Your task to perform on an android device: clear all cookies in the chrome app Image 0: 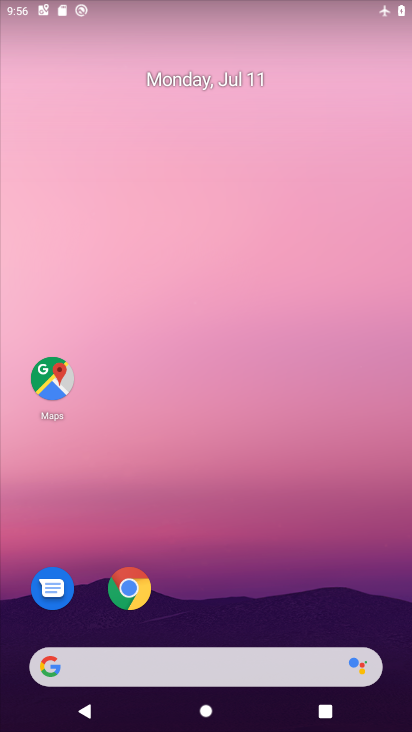
Step 0: drag from (222, 586) to (179, 264)
Your task to perform on an android device: clear all cookies in the chrome app Image 1: 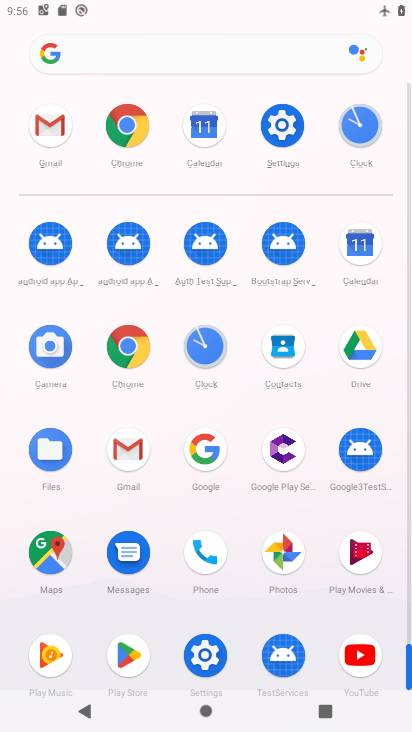
Step 1: click (133, 351)
Your task to perform on an android device: clear all cookies in the chrome app Image 2: 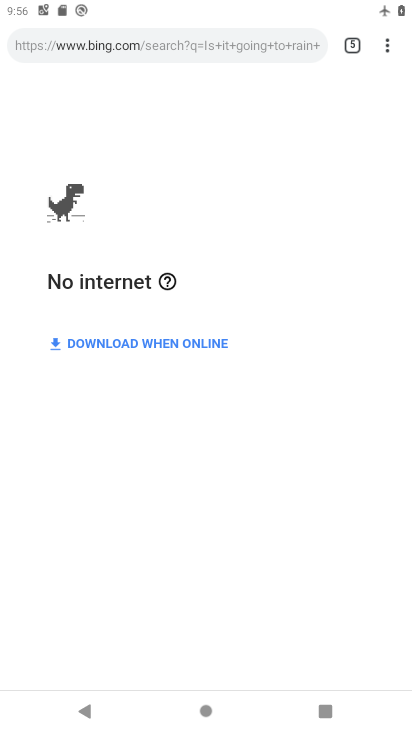
Step 2: click (392, 40)
Your task to perform on an android device: clear all cookies in the chrome app Image 3: 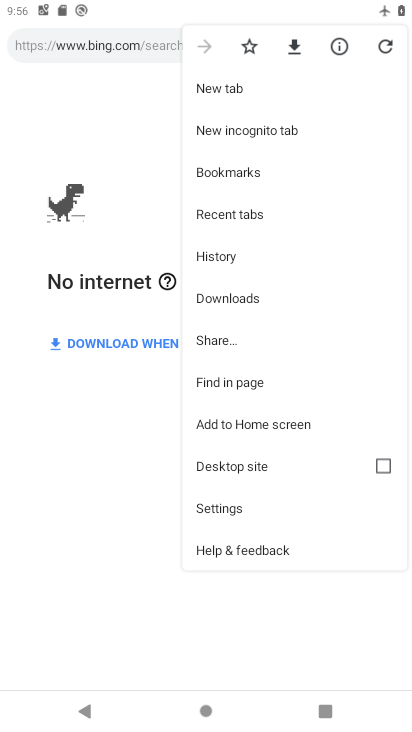
Step 3: click (255, 507)
Your task to perform on an android device: clear all cookies in the chrome app Image 4: 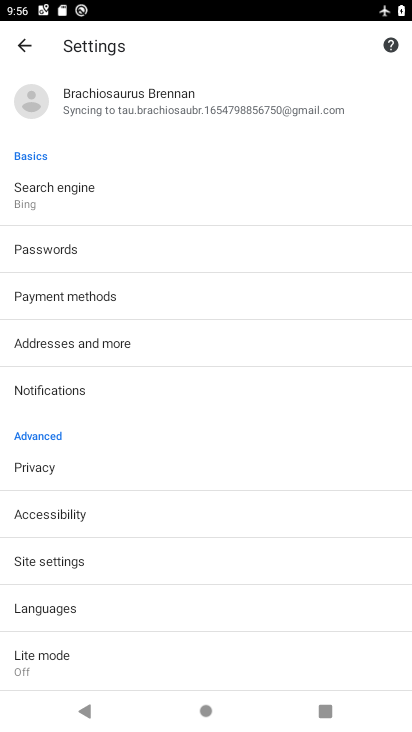
Step 4: click (118, 461)
Your task to perform on an android device: clear all cookies in the chrome app Image 5: 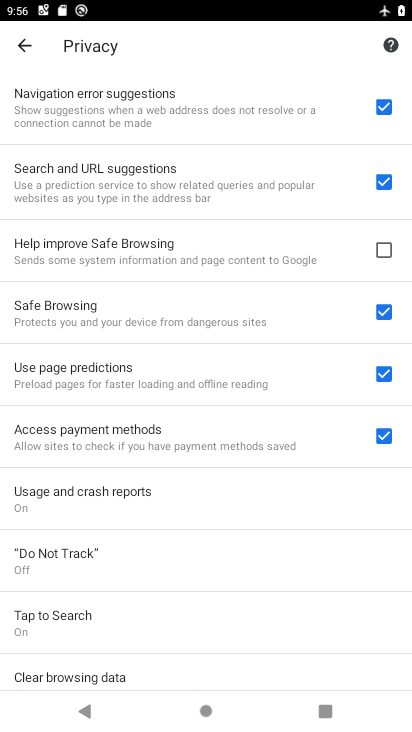
Step 5: drag from (198, 578) to (208, 262)
Your task to perform on an android device: clear all cookies in the chrome app Image 6: 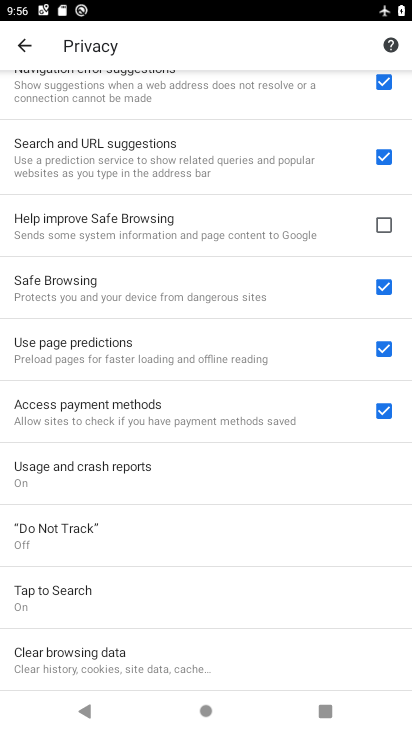
Step 6: click (171, 658)
Your task to perform on an android device: clear all cookies in the chrome app Image 7: 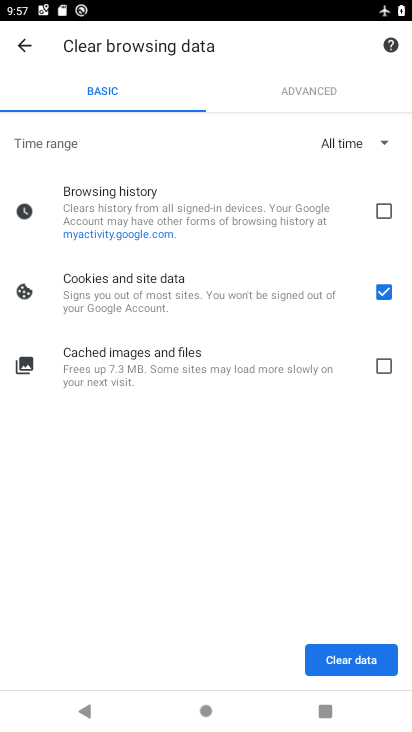
Step 7: click (176, 280)
Your task to perform on an android device: clear all cookies in the chrome app Image 8: 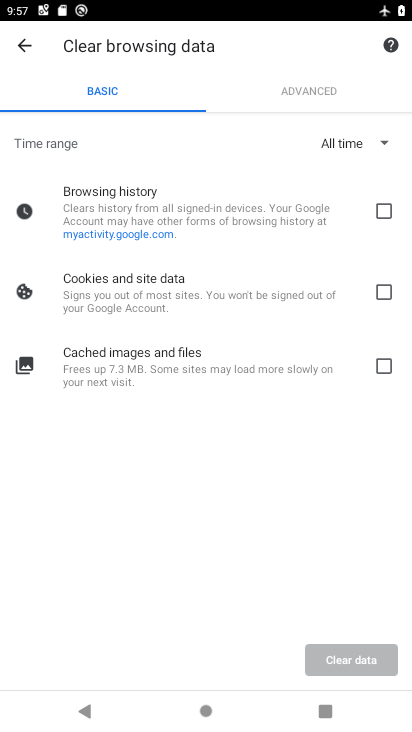
Step 8: click (387, 276)
Your task to perform on an android device: clear all cookies in the chrome app Image 9: 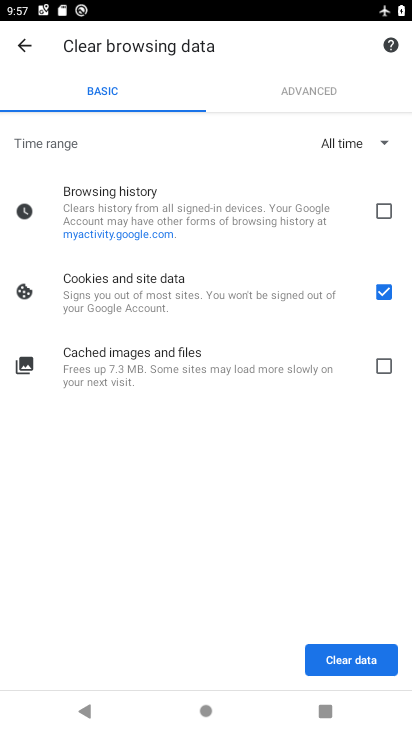
Step 9: click (343, 659)
Your task to perform on an android device: clear all cookies in the chrome app Image 10: 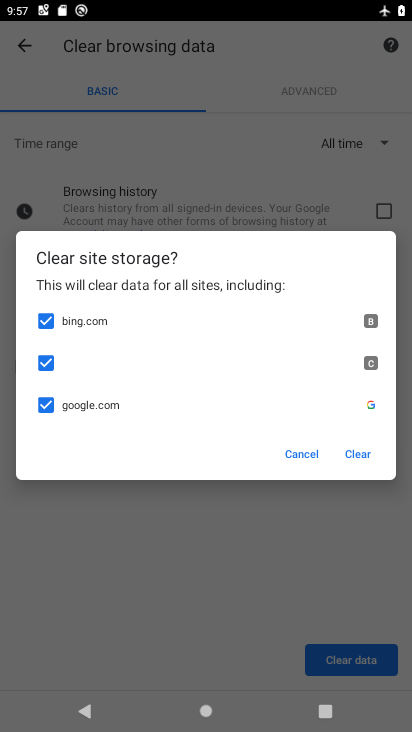
Step 10: click (353, 459)
Your task to perform on an android device: clear all cookies in the chrome app Image 11: 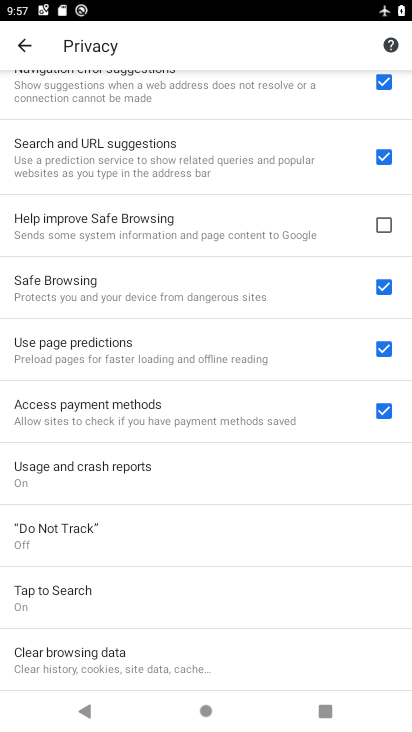
Step 11: task complete